Your task to perform on an android device: Go to notification settings Image 0: 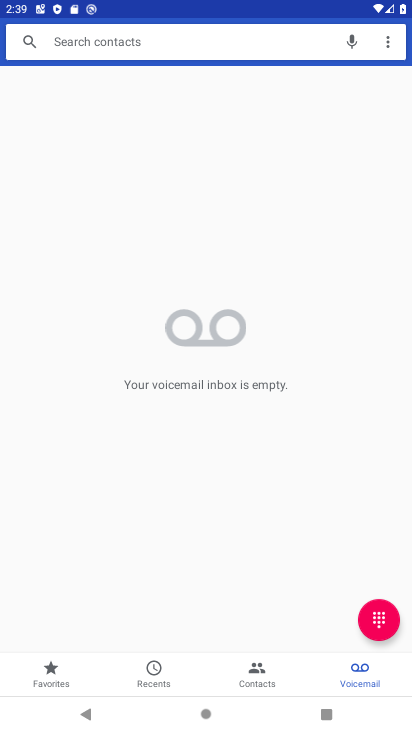
Step 0: press home button
Your task to perform on an android device: Go to notification settings Image 1: 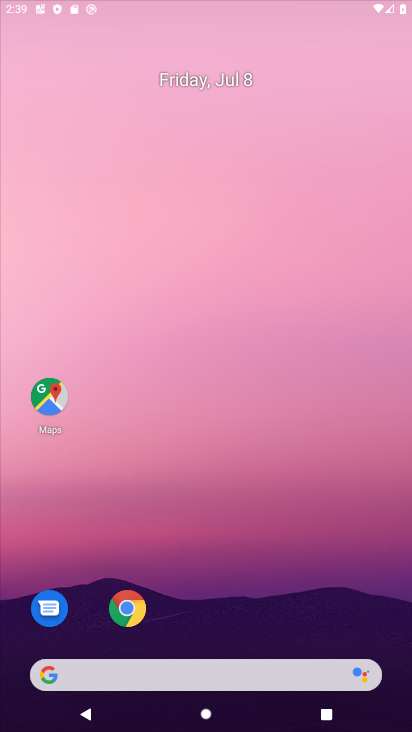
Step 1: drag from (282, 521) to (321, 21)
Your task to perform on an android device: Go to notification settings Image 2: 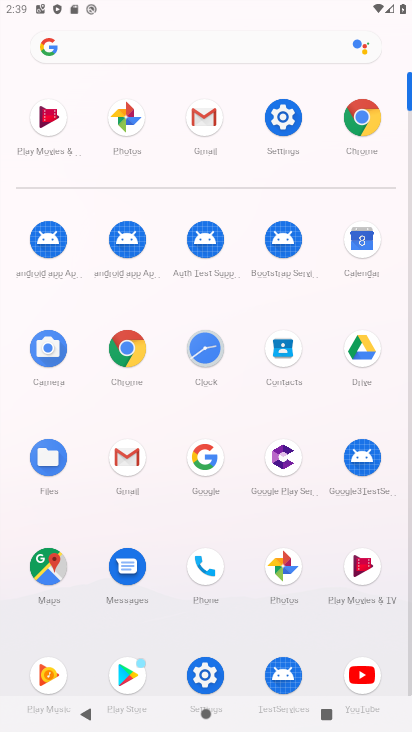
Step 2: click (284, 118)
Your task to perform on an android device: Go to notification settings Image 3: 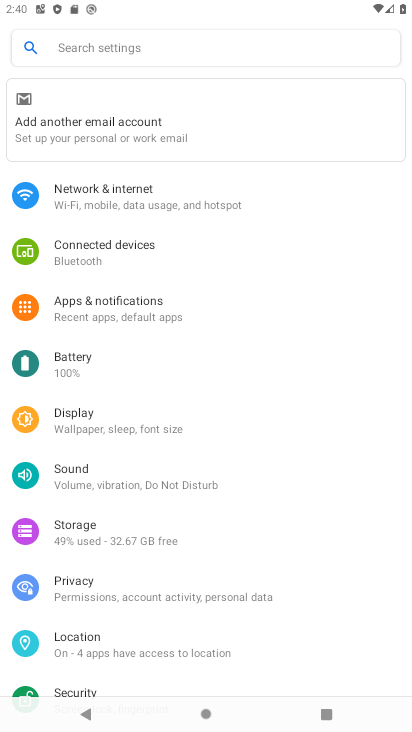
Step 3: click (112, 318)
Your task to perform on an android device: Go to notification settings Image 4: 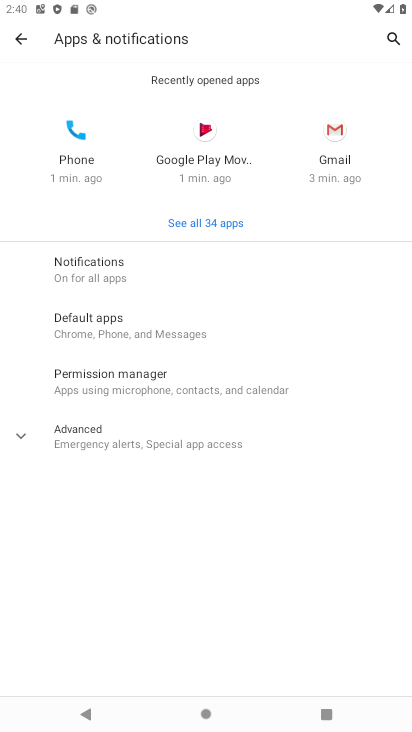
Step 4: task complete